Your task to perform on an android device: turn on the 24-hour format for clock Image 0: 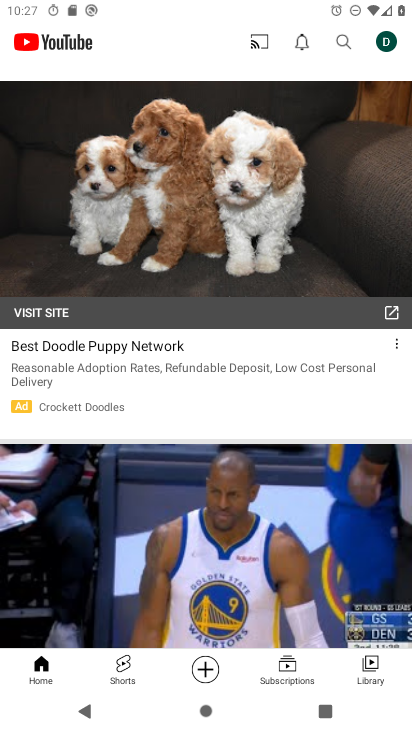
Step 0: press home button
Your task to perform on an android device: turn on the 24-hour format for clock Image 1: 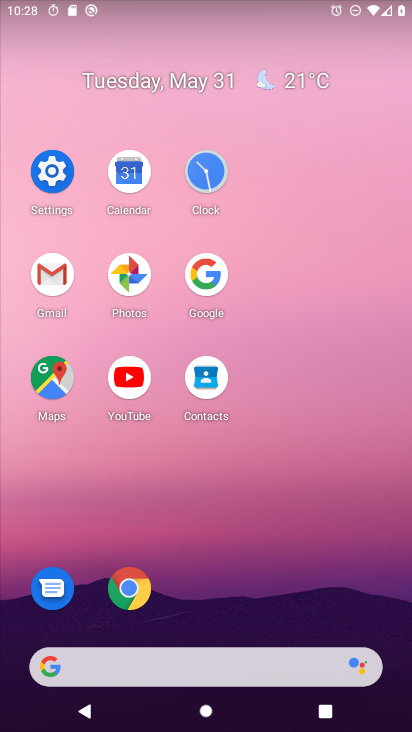
Step 1: click (209, 177)
Your task to perform on an android device: turn on the 24-hour format for clock Image 2: 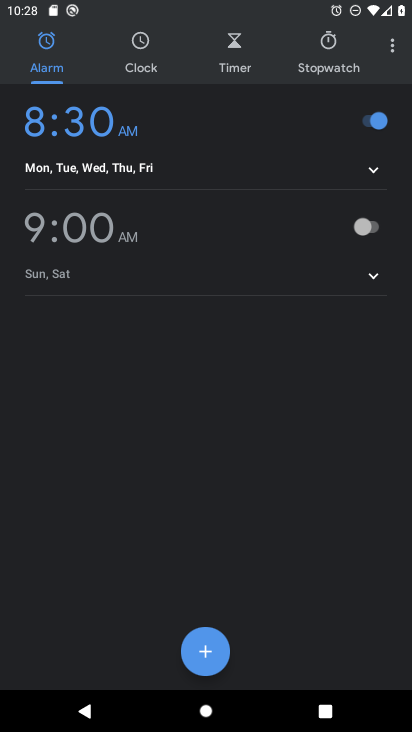
Step 2: click (395, 52)
Your task to perform on an android device: turn on the 24-hour format for clock Image 3: 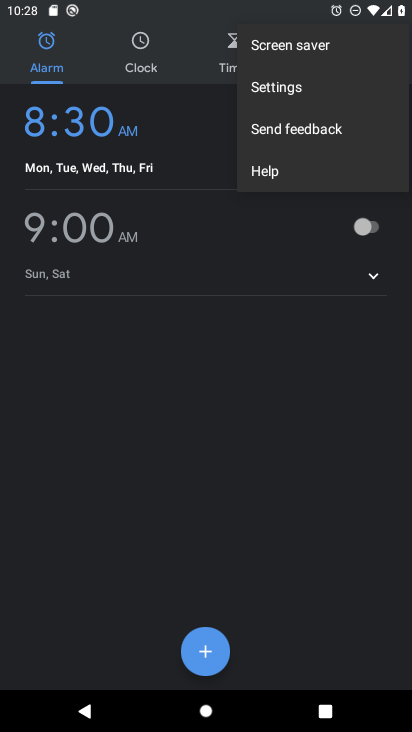
Step 3: click (282, 83)
Your task to perform on an android device: turn on the 24-hour format for clock Image 4: 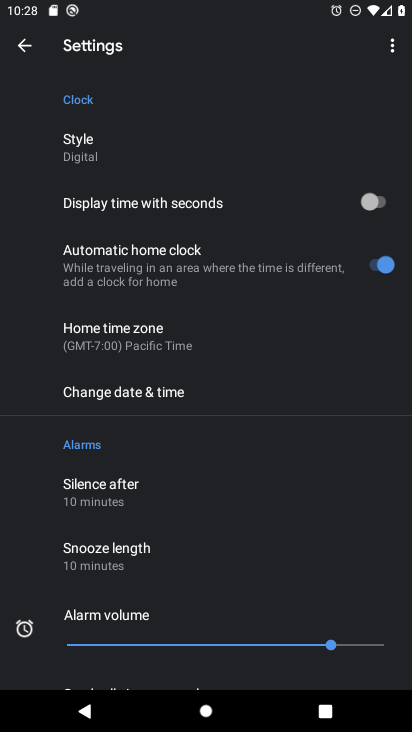
Step 4: click (138, 400)
Your task to perform on an android device: turn on the 24-hour format for clock Image 5: 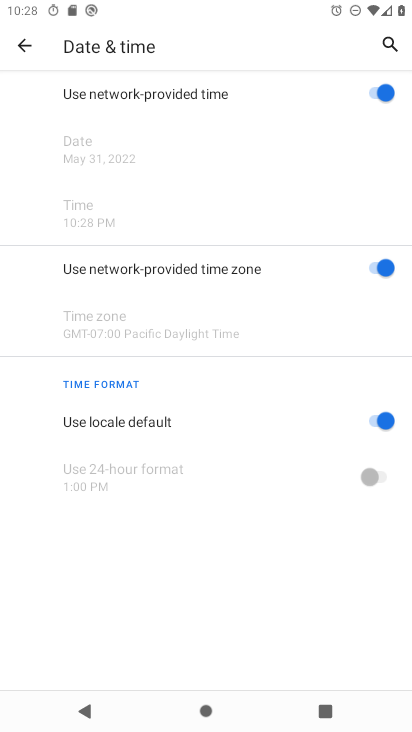
Step 5: click (371, 423)
Your task to perform on an android device: turn on the 24-hour format for clock Image 6: 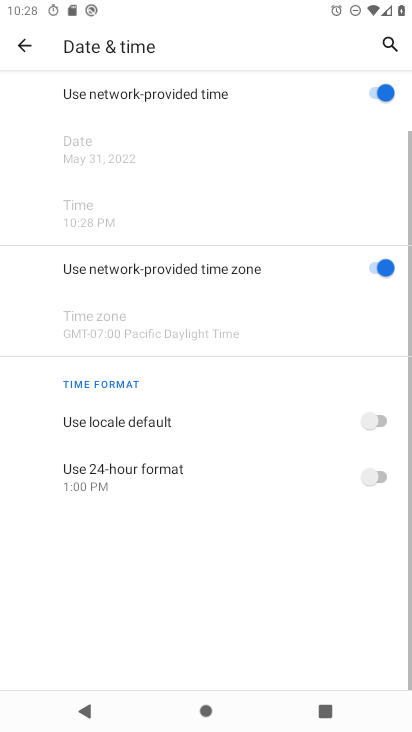
Step 6: click (362, 487)
Your task to perform on an android device: turn on the 24-hour format for clock Image 7: 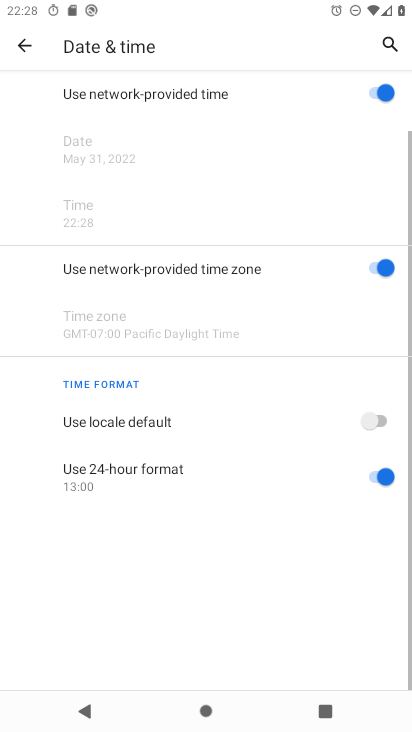
Step 7: task complete